Your task to perform on an android device: Go to wifi settings Image 0: 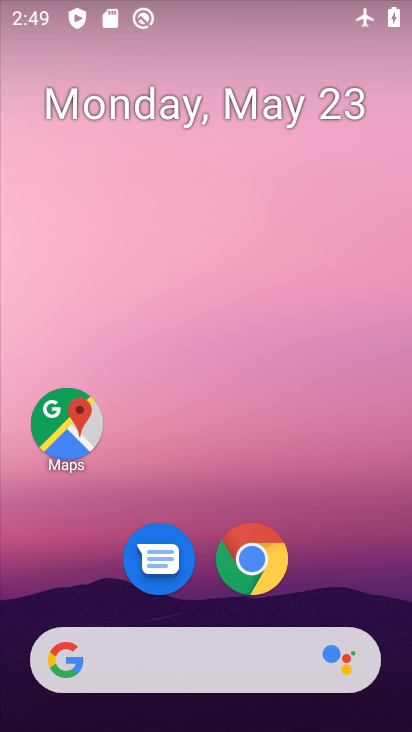
Step 0: drag from (221, 666) to (283, 180)
Your task to perform on an android device: Go to wifi settings Image 1: 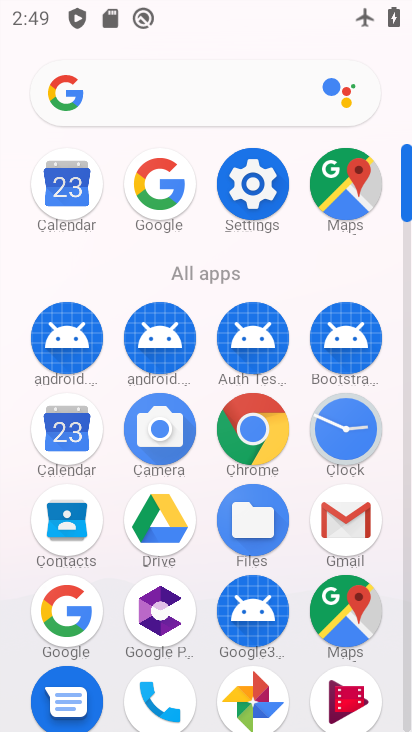
Step 1: click (256, 197)
Your task to perform on an android device: Go to wifi settings Image 2: 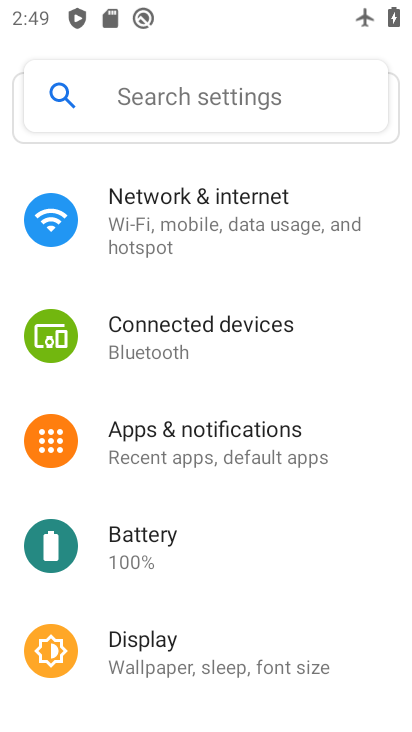
Step 2: click (249, 209)
Your task to perform on an android device: Go to wifi settings Image 3: 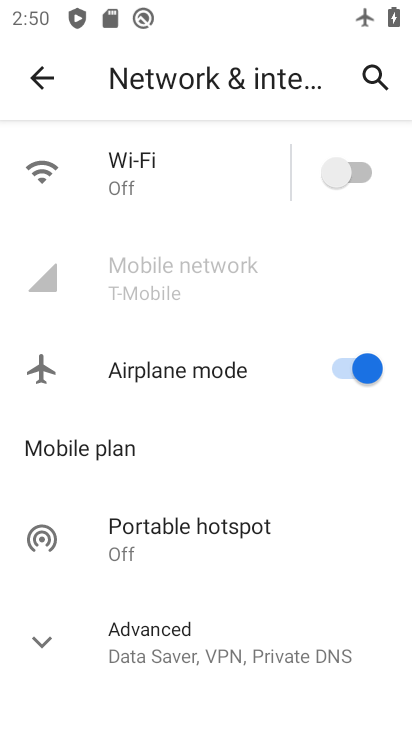
Step 3: click (152, 172)
Your task to perform on an android device: Go to wifi settings Image 4: 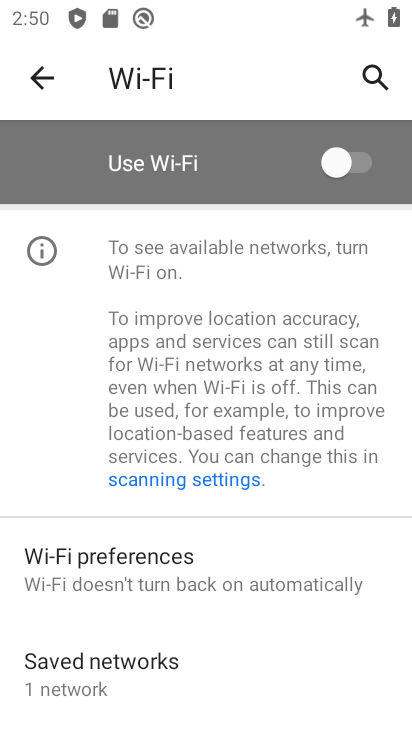
Step 4: task complete